Your task to perform on an android device: Do I have any events today? Image 0: 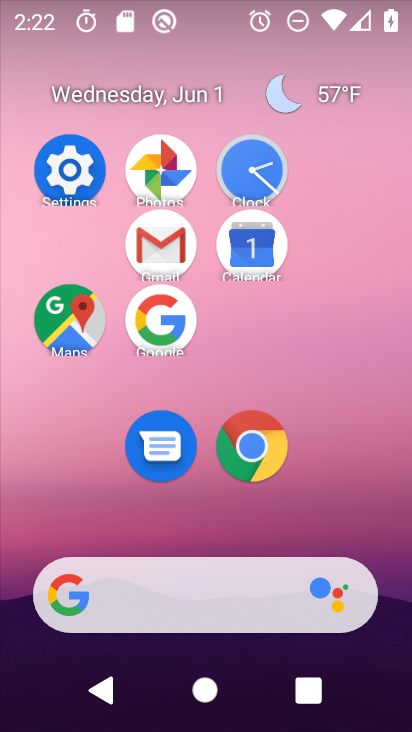
Step 0: click (243, 236)
Your task to perform on an android device: Do I have any events today? Image 1: 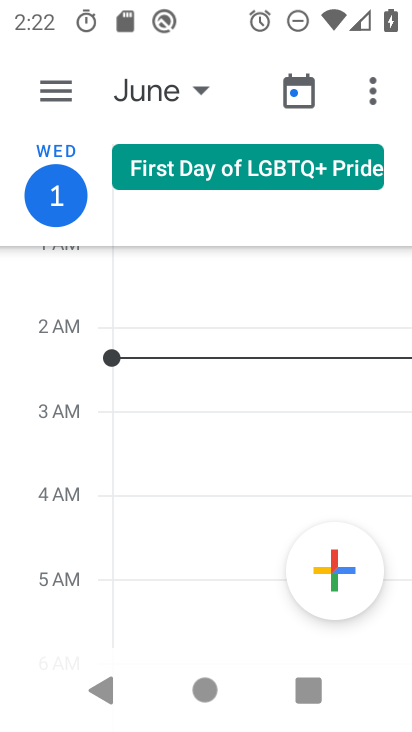
Step 1: task complete